Your task to perform on an android device: turn on priority inbox in the gmail app Image 0: 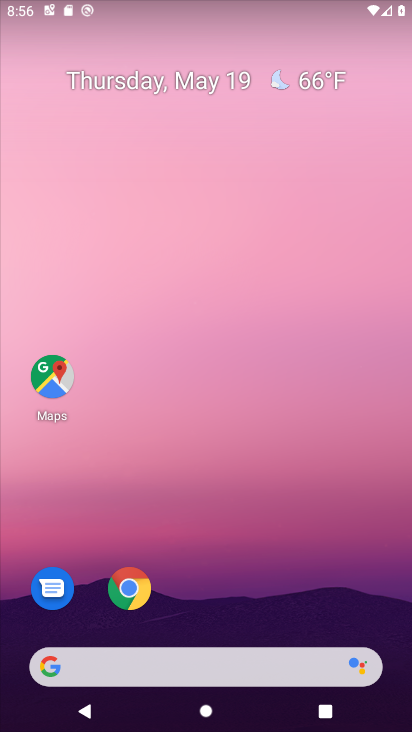
Step 0: drag from (347, 615) to (326, 267)
Your task to perform on an android device: turn on priority inbox in the gmail app Image 1: 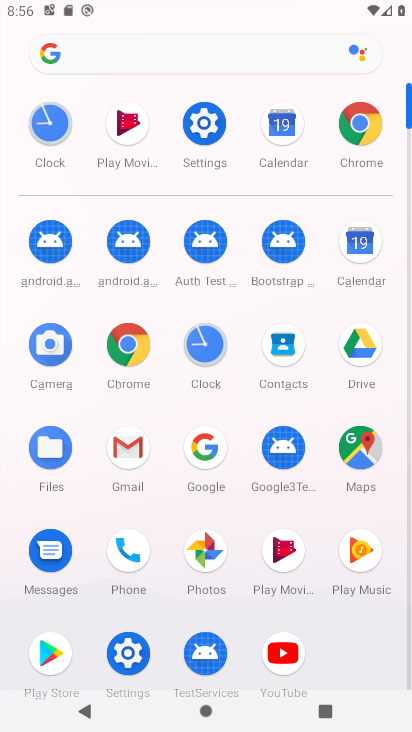
Step 1: click (135, 449)
Your task to perform on an android device: turn on priority inbox in the gmail app Image 2: 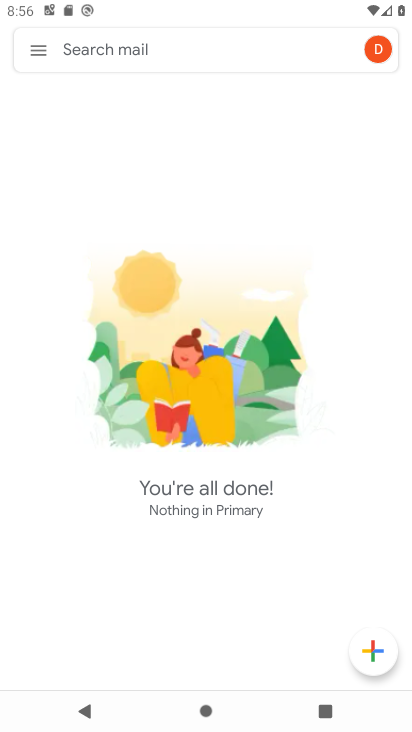
Step 2: click (37, 61)
Your task to perform on an android device: turn on priority inbox in the gmail app Image 3: 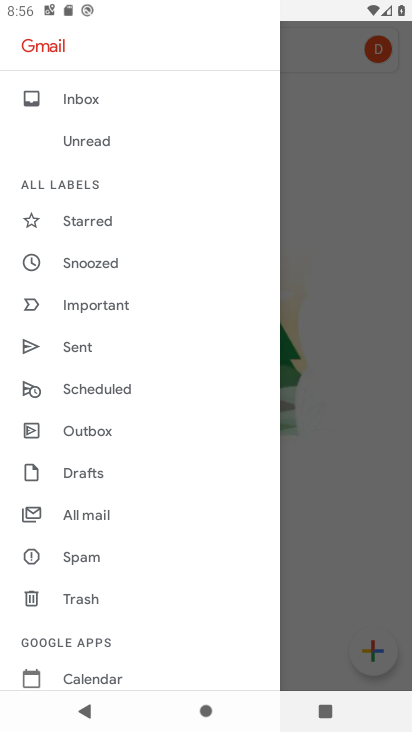
Step 3: drag from (214, 421) to (217, 311)
Your task to perform on an android device: turn on priority inbox in the gmail app Image 4: 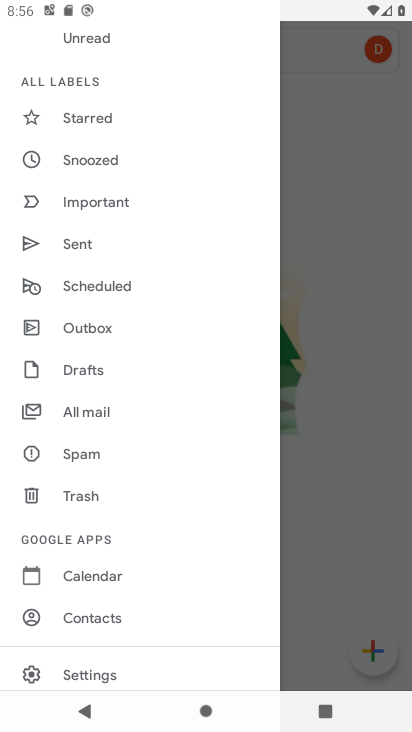
Step 4: drag from (204, 441) to (216, 317)
Your task to perform on an android device: turn on priority inbox in the gmail app Image 5: 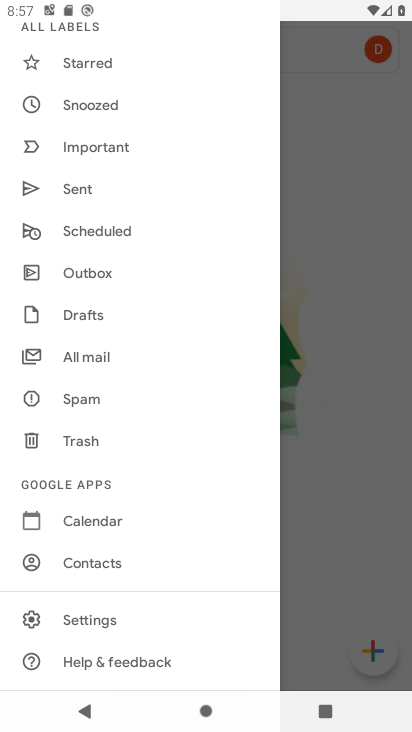
Step 5: drag from (240, 240) to (223, 335)
Your task to perform on an android device: turn on priority inbox in the gmail app Image 6: 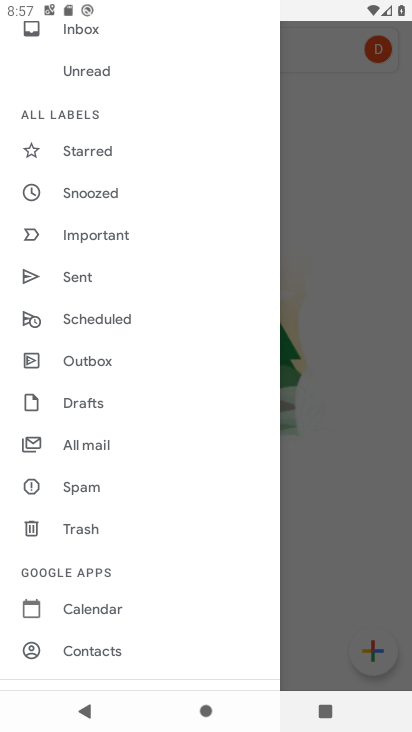
Step 6: drag from (228, 252) to (227, 292)
Your task to perform on an android device: turn on priority inbox in the gmail app Image 7: 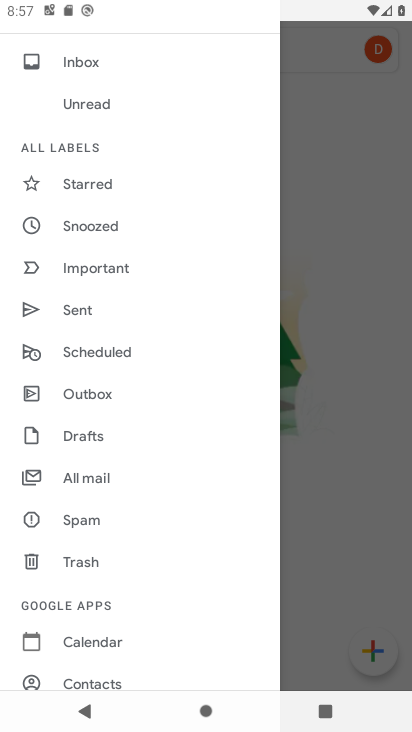
Step 7: click (227, 292)
Your task to perform on an android device: turn on priority inbox in the gmail app Image 8: 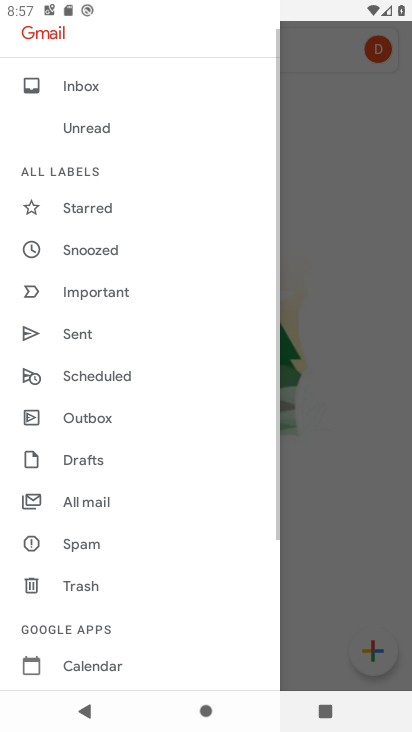
Step 8: drag from (229, 250) to (224, 300)
Your task to perform on an android device: turn on priority inbox in the gmail app Image 9: 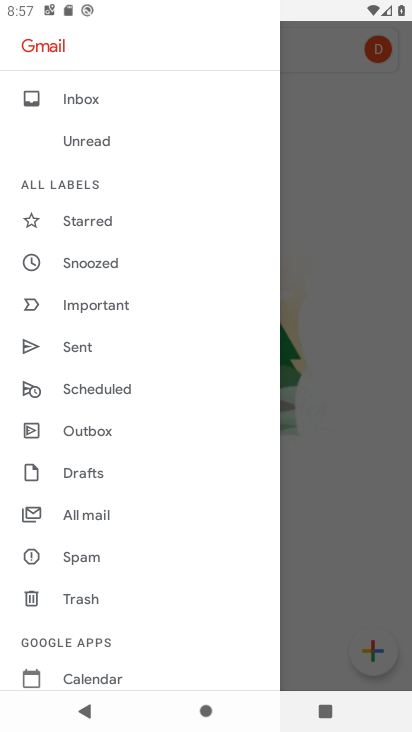
Step 9: drag from (229, 442) to (229, 338)
Your task to perform on an android device: turn on priority inbox in the gmail app Image 10: 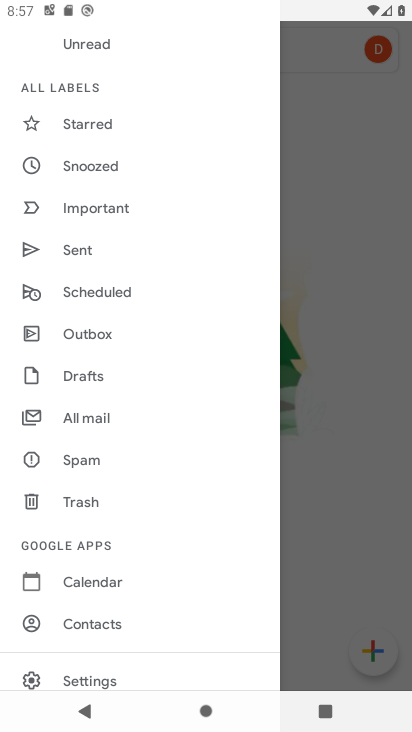
Step 10: drag from (230, 484) to (231, 389)
Your task to perform on an android device: turn on priority inbox in the gmail app Image 11: 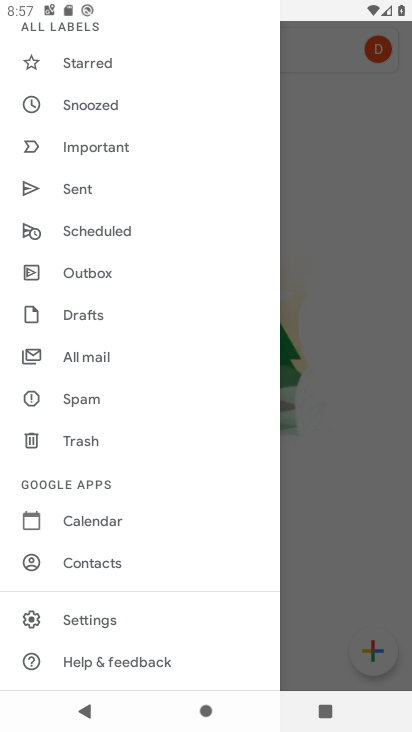
Step 11: click (119, 612)
Your task to perform on an android device: turn on priority inbox in the gmail app Image 12: 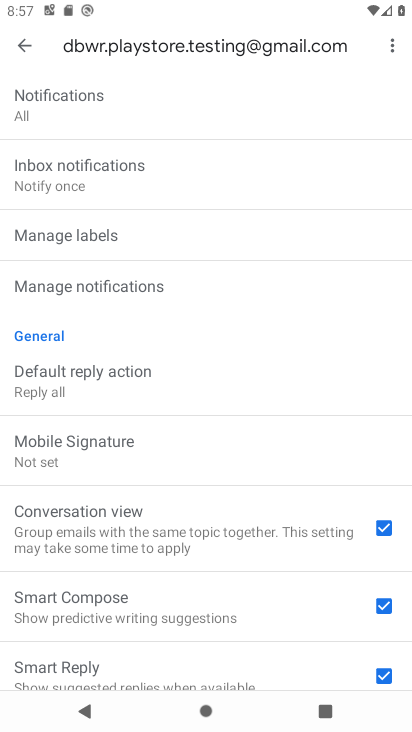
Step 12: drag from (231, 521) to (243, 441)
Your task to perform on an android device: turn on priority inbox in the gmail app Image 13: 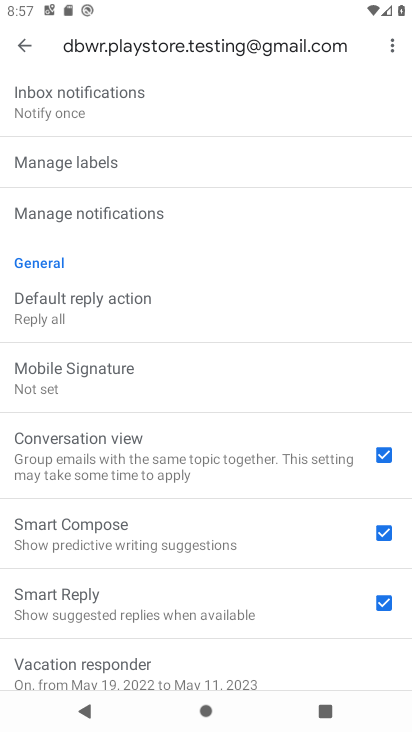
Step 13: click (255, 493)
Your task to perform on an android device: turn on priority inbox in the gmail app Image 14: 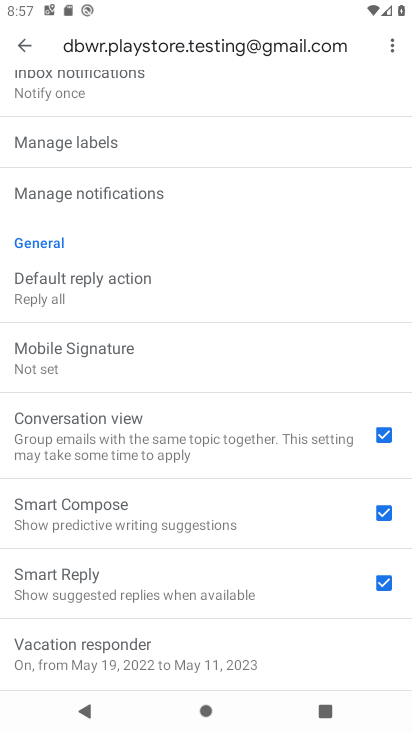
Step 14: drag from (277, 529) to (279, 446)
Your task to perform on an android device: turn on priority inbox in the gmail app Image 15: 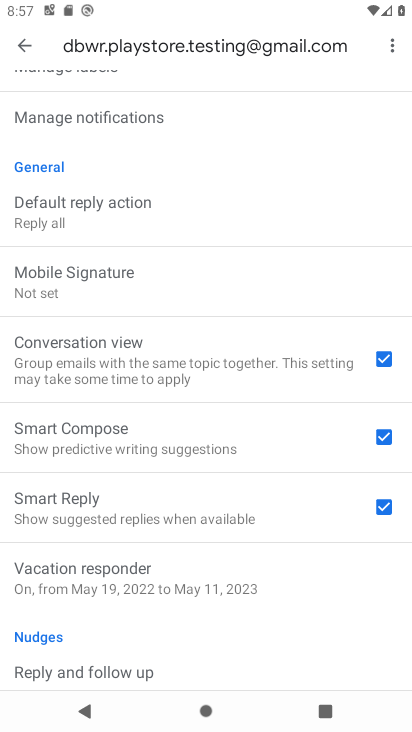
Step 15: click (279, 491)
Your task to perform on an android device: turn on priority inbox in the gmail app Image 16: 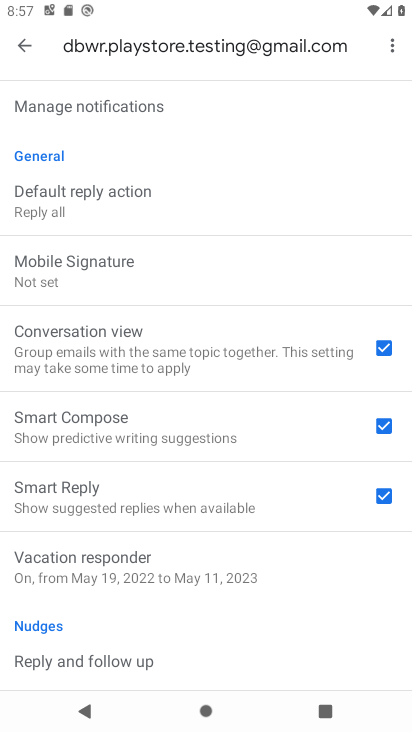
Step 16: click (285, 494)
Your task to perform on an android device: turn on priority inbox in the gmail app Image 17: 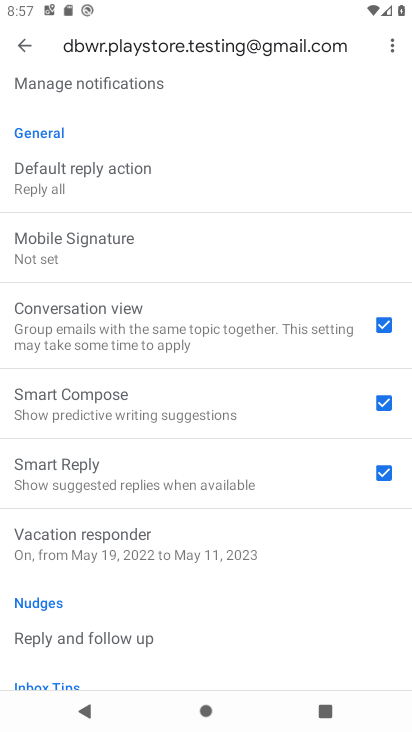
Step 17: click (284, 476)
Your task to perform on an android device: turn on priority inbox in the gmail app Image 18: 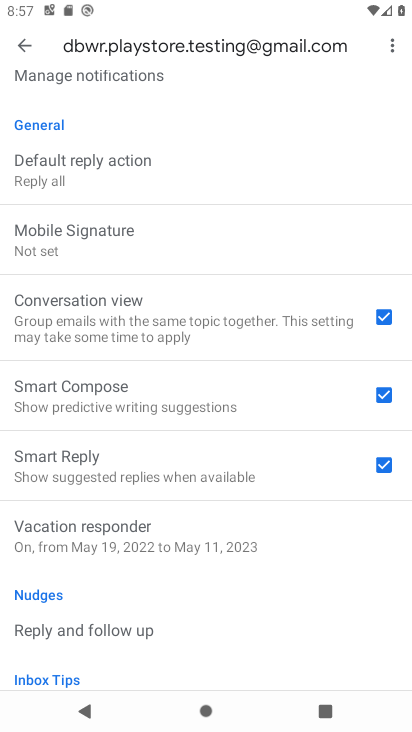
Step 18: drag from (285, 529) to (298, 428)
Your task to perform on an android device: turn on priority inbox in the gmail app Image 19: 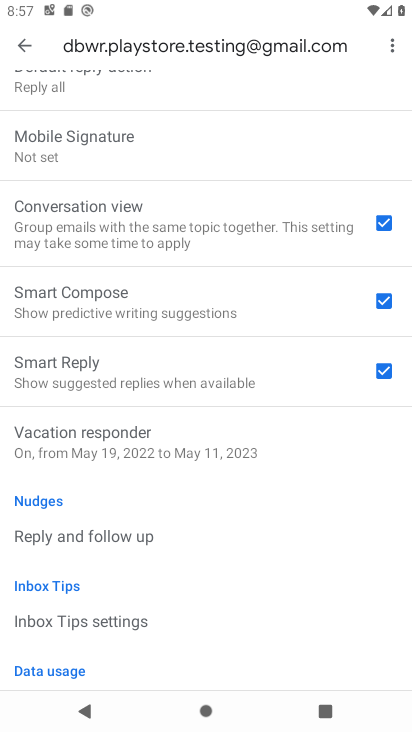
Step 19: drag from (293, 535) to (308, 431)
Your task to perform on an android device: turn on priority inbox in the gmail app Image 20: 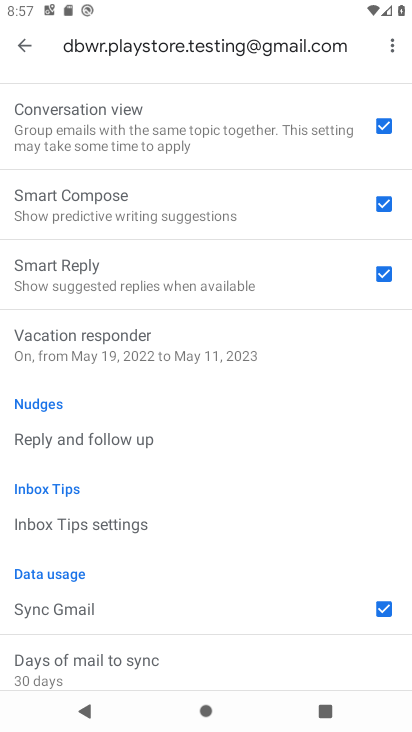
Step 20: drag from (306, 540) to (305, 473)
Your task to perform on an android device: turn on priority inbox in the gmail app Image 21: 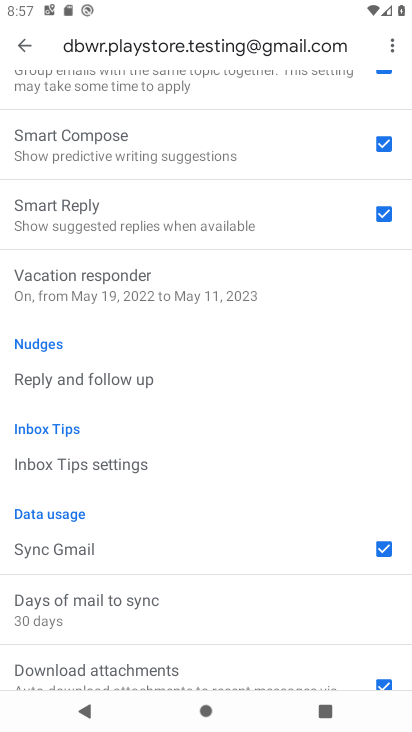
Step 21: drag from (311, 548) to (316, 448)
Your task to perform on an android device: turn on priority inbox in the gmail app Image 22: 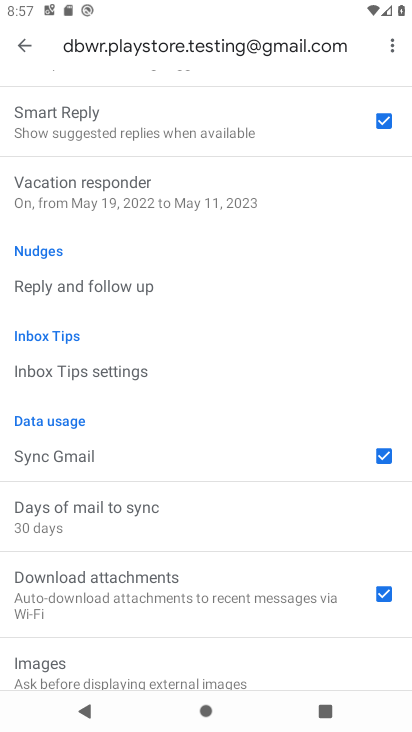
Step 22: drag from (315, 316) to (308, 455)
Your task to perform on an android device: turn on priority inbox in the gmail app Image 23: 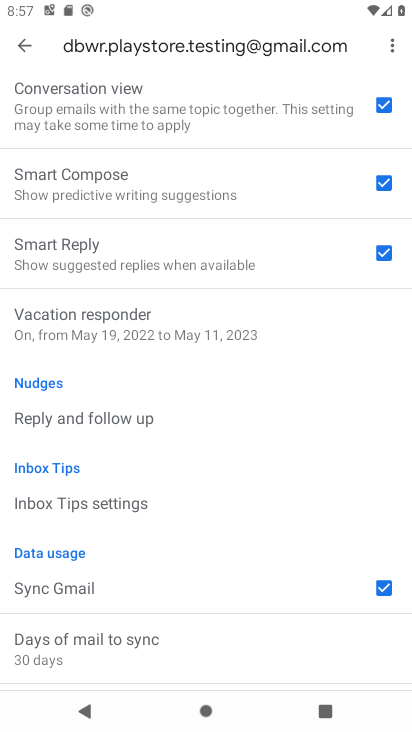
Step 23: drag from (308, 288) to (306, 382)
Your task to perform on an android device: turn on priority inbox in the gmail app Image 24: 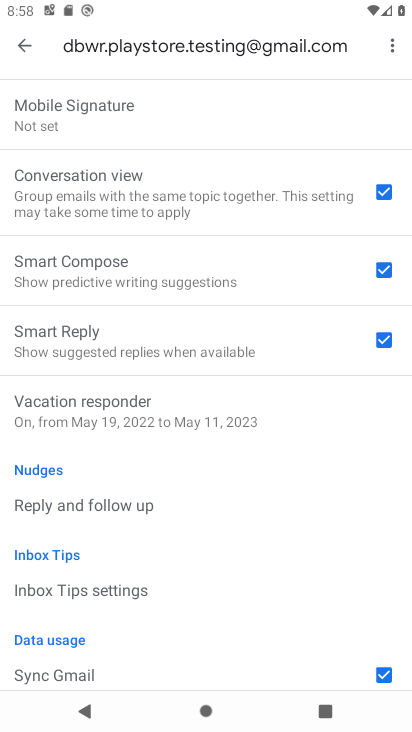
Step 24: drag from (291, 331) to (302, 441)
Your task to perform on an android device: turn on priority inbox in the gmail app Image 25: 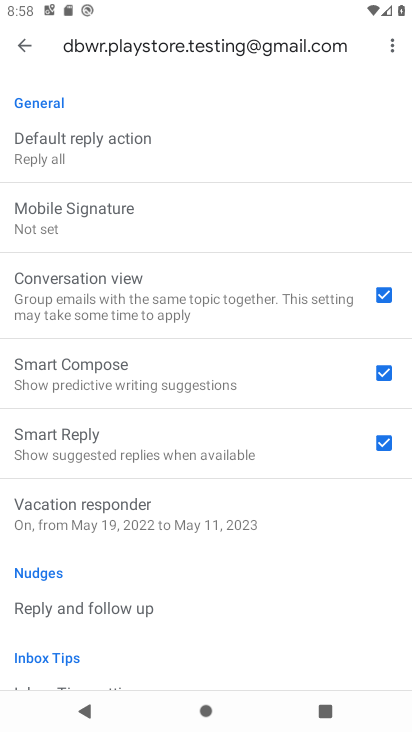
Step 25: drag from (301, 352) to (298, 443)
Your task to perform on an android device: turn on priority inbox in the gmail app Image 26: 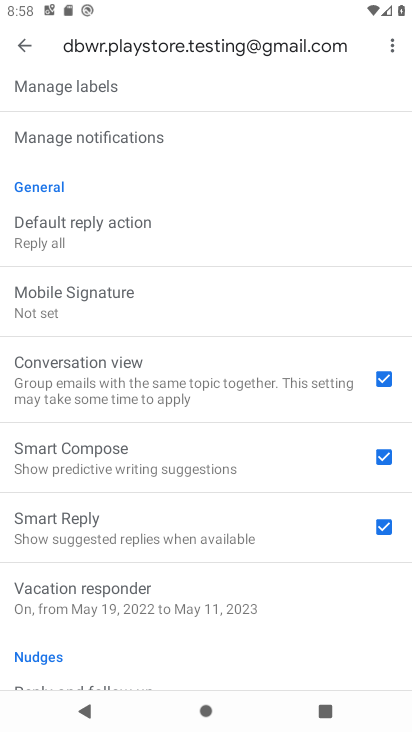
Step 26: drag from (290, 272) to (284, 377)
Your task to perform on an android device: turn on priority inbox in the gmail app Image 27: 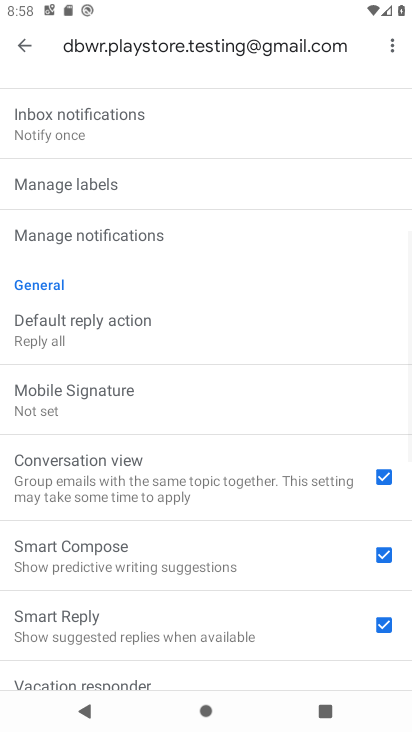
Step 27: drag from (278, 278) to (274, 390)
Your task to perform on an android device: turn on priority inbox in the gmail app Image 28: 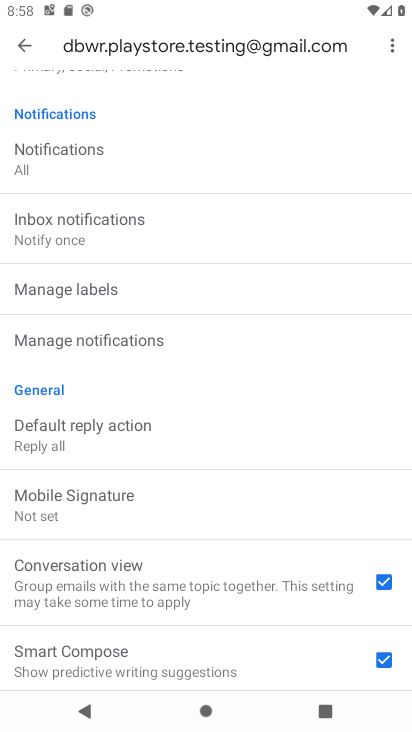
Step 28: drag from (275, 293) to (275, 386)
Your task to perform on an android device: turn on priority inbox in the gmail app Image 29: 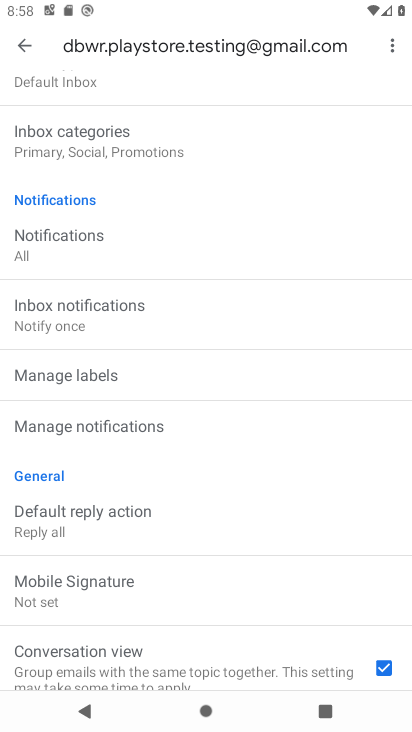
Step 29: drag from (270, 247) to (270, 349)
Your task to perform on an android device: turn on priority inbox in the gmail app Image 30: 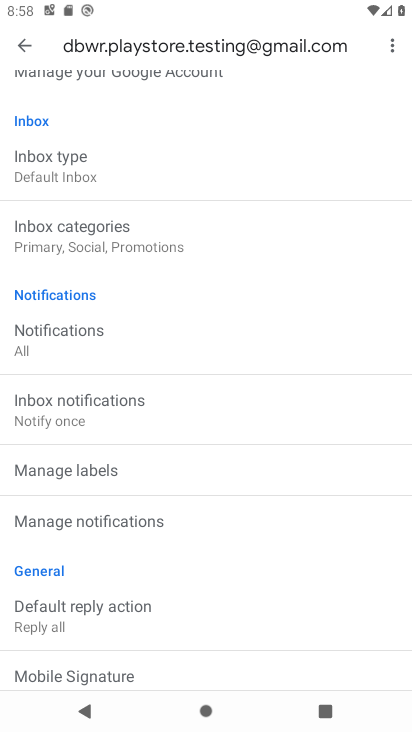
Step 30: click (107, 164)
Your task to perform on an android device: turn on priority inbox in the gmail app Image 31: 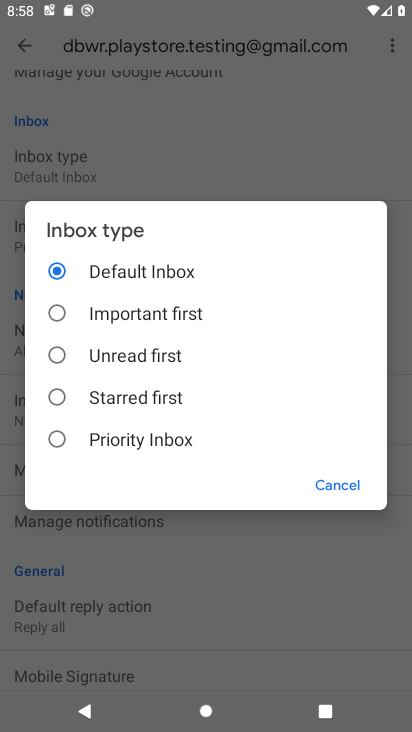
Step 31: click (178, 431)
Your task to perform on an android device: turn on priority inbox in the gmail app Image 32: 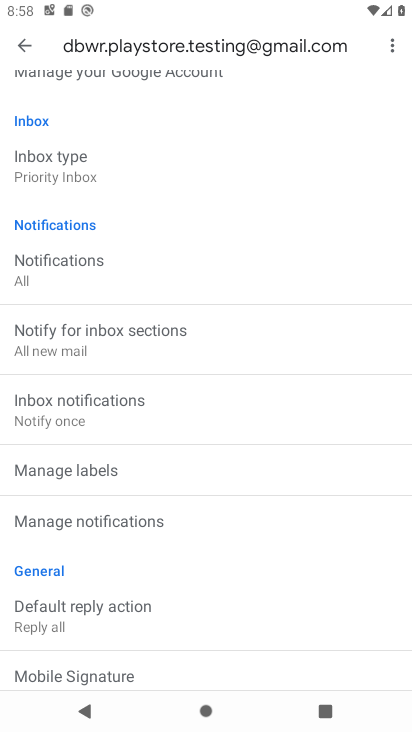
Step 32: task complete